Your task to perform on an android device: toggle improve location accuracy Image 0: 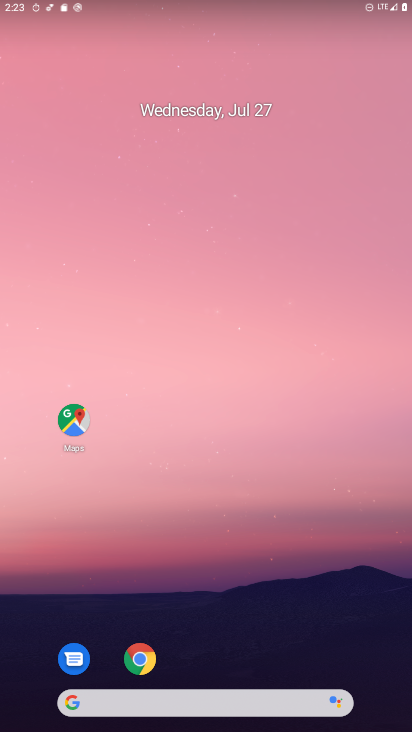
Step 0: drag from (293, 624) to (238, 104)
Your task to perform on an android device: toggle improve location accuracy Image 1: 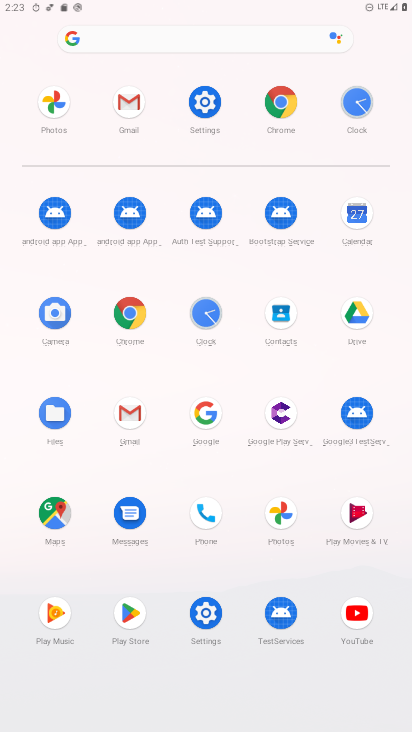
Step 1: click (206, 98)
Your task to perform on an android device: toggle improve location accuracy Image 2: 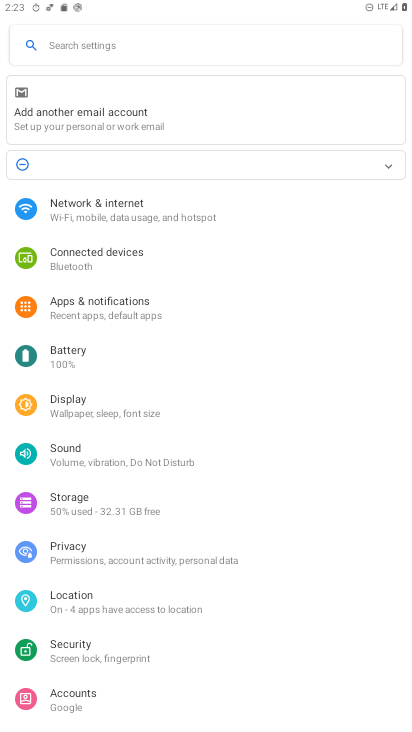
Step 2: click (83, 608)
Your task to perform on an android device: toggle improve location accuracy Image 3: 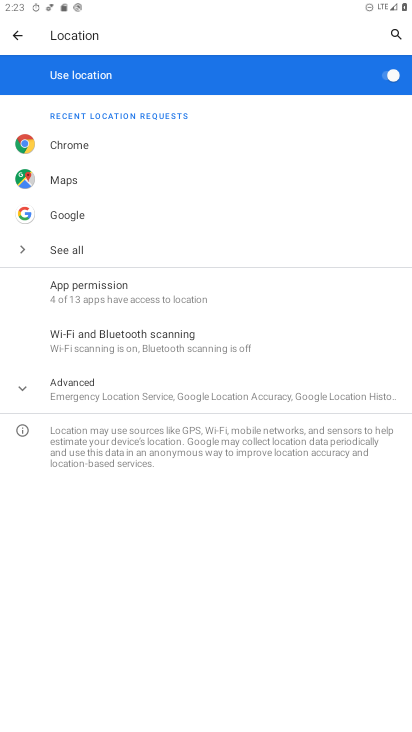
Step 3: click (123, 409)
Your task to perform on an android device: toggle improve location accuracy Image 4: 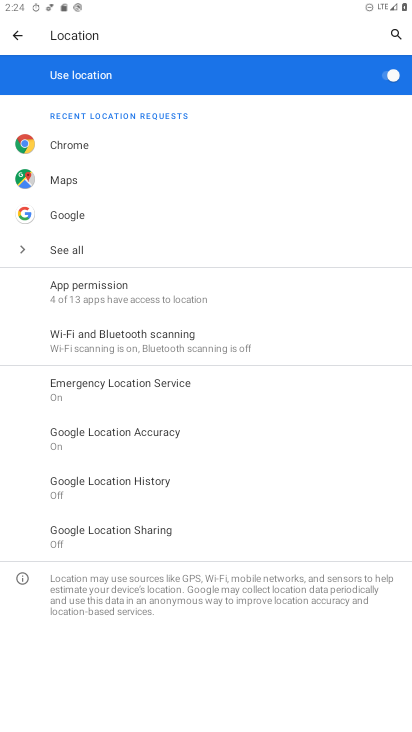
Step 4: click (121, 435)
Your task to perform on an android device: toggle improve location accuracy Image 5: 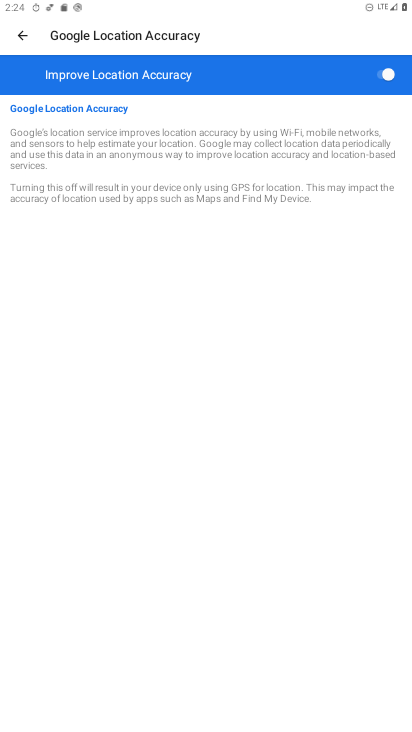
Step 5: click (367, 71)
Your task to perform on an android device: toggle improve location accuracy Image 6: 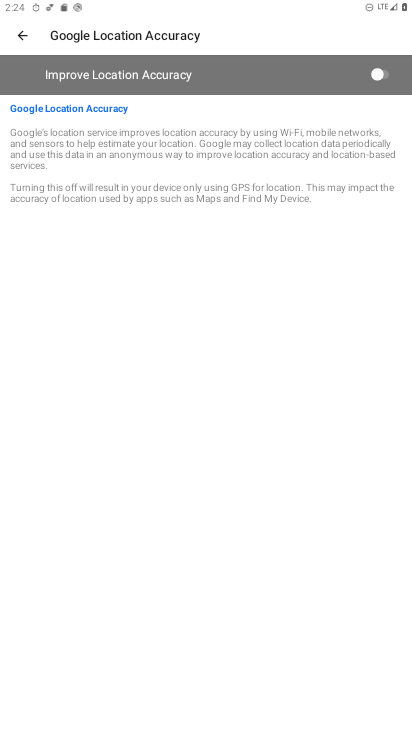
Step 6: task complete